Your task to perform on an android device: Check the weather Image 0: 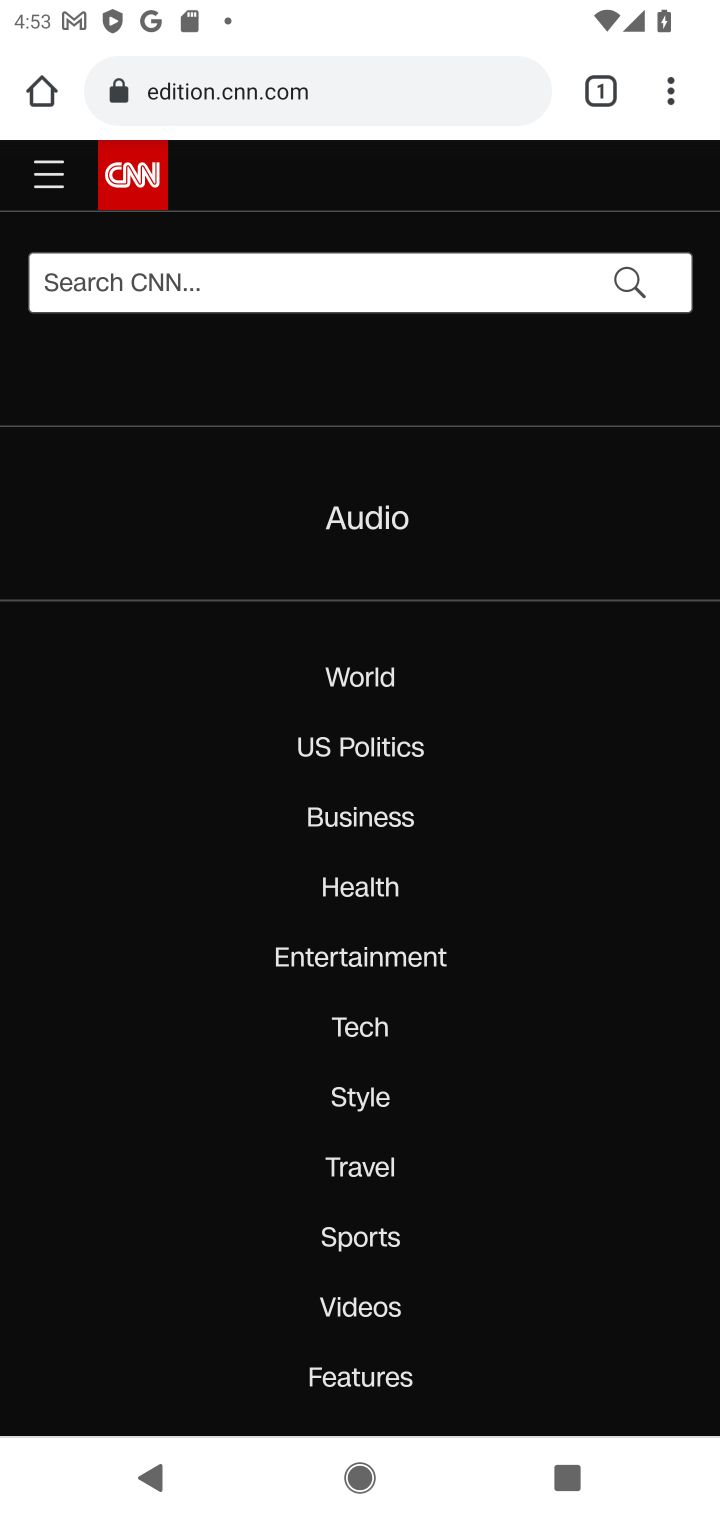
Step 0: press home button
Your task to perform on an android device: Check the weather Image 1: 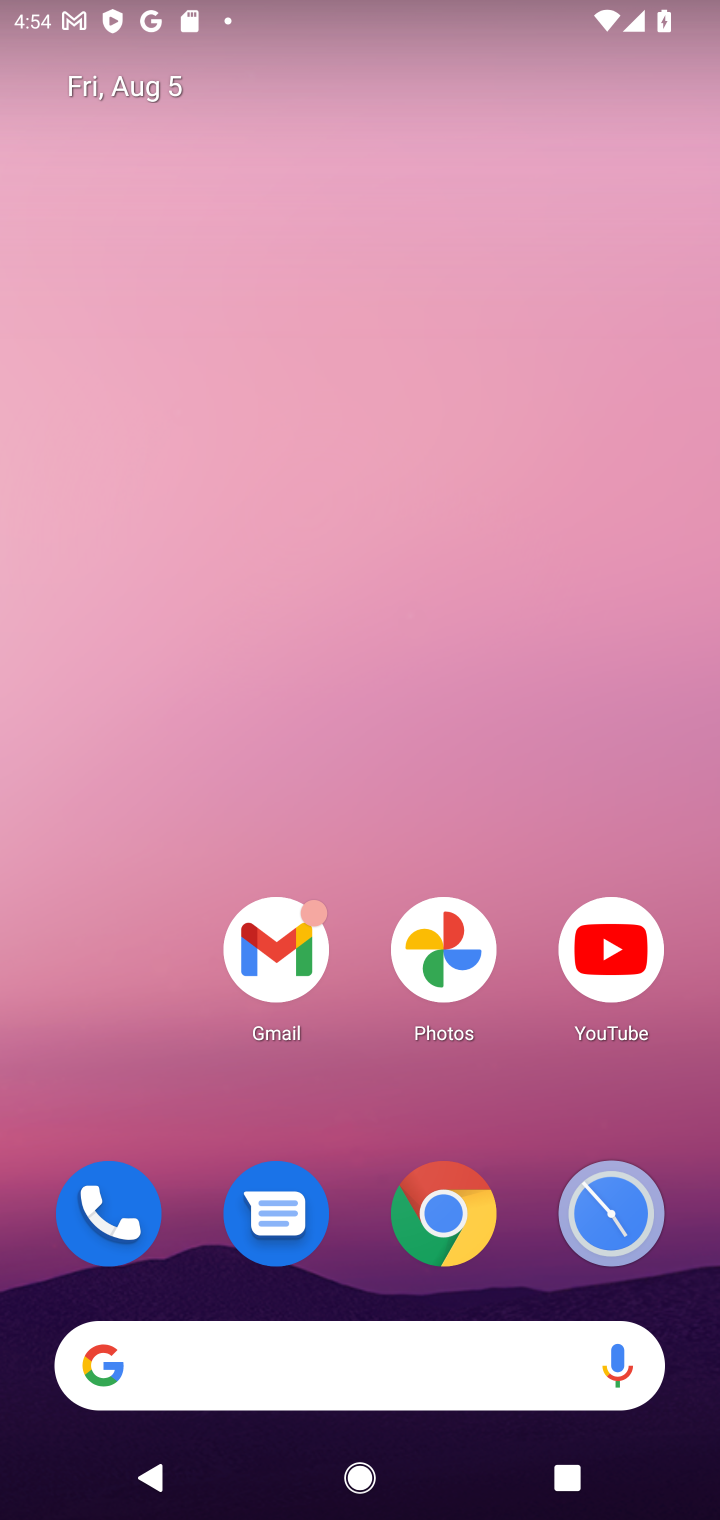
Step 1: click (458, 1352)
Your task to perform on an android device: Check the weather Image 2: 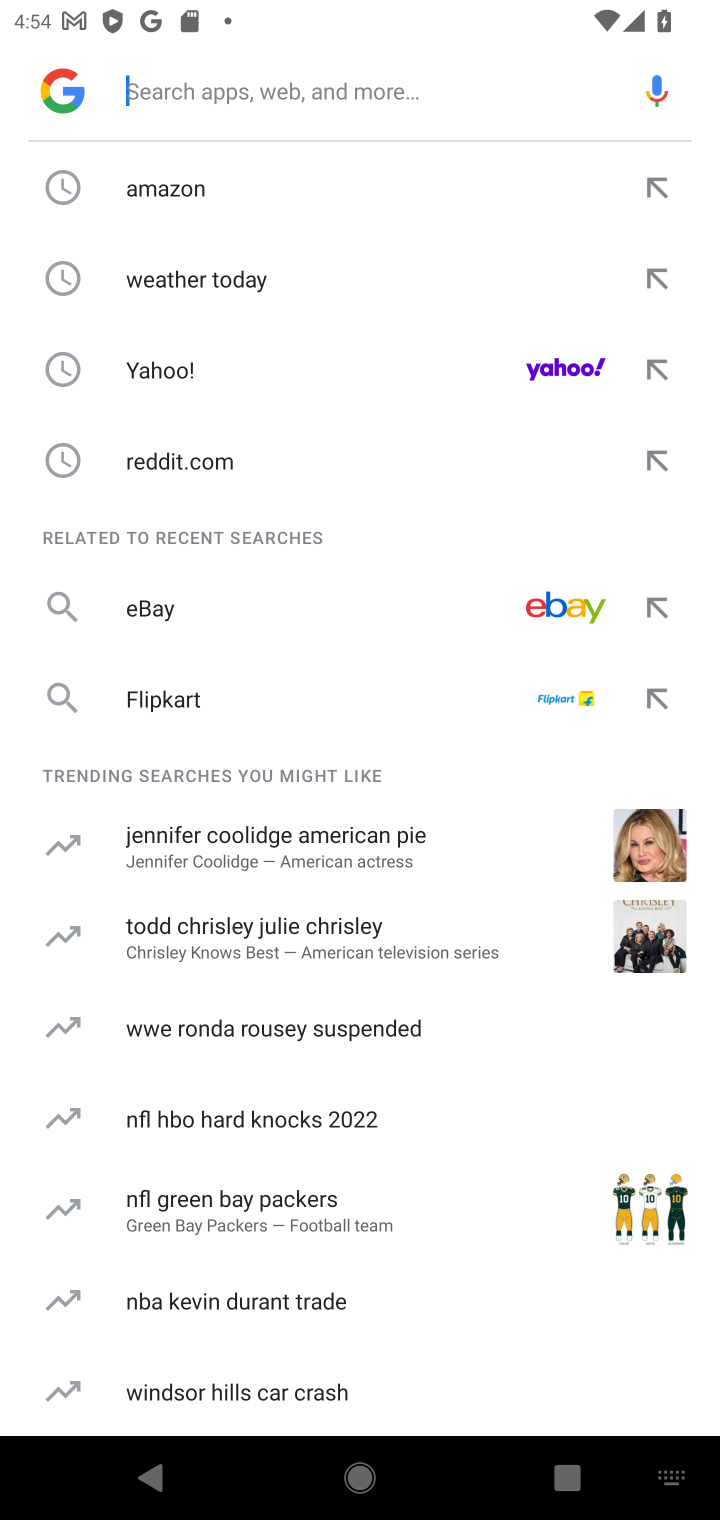
Step 2: click (415, 278)
Your task to perform on an android device: Check the weather Image 3: 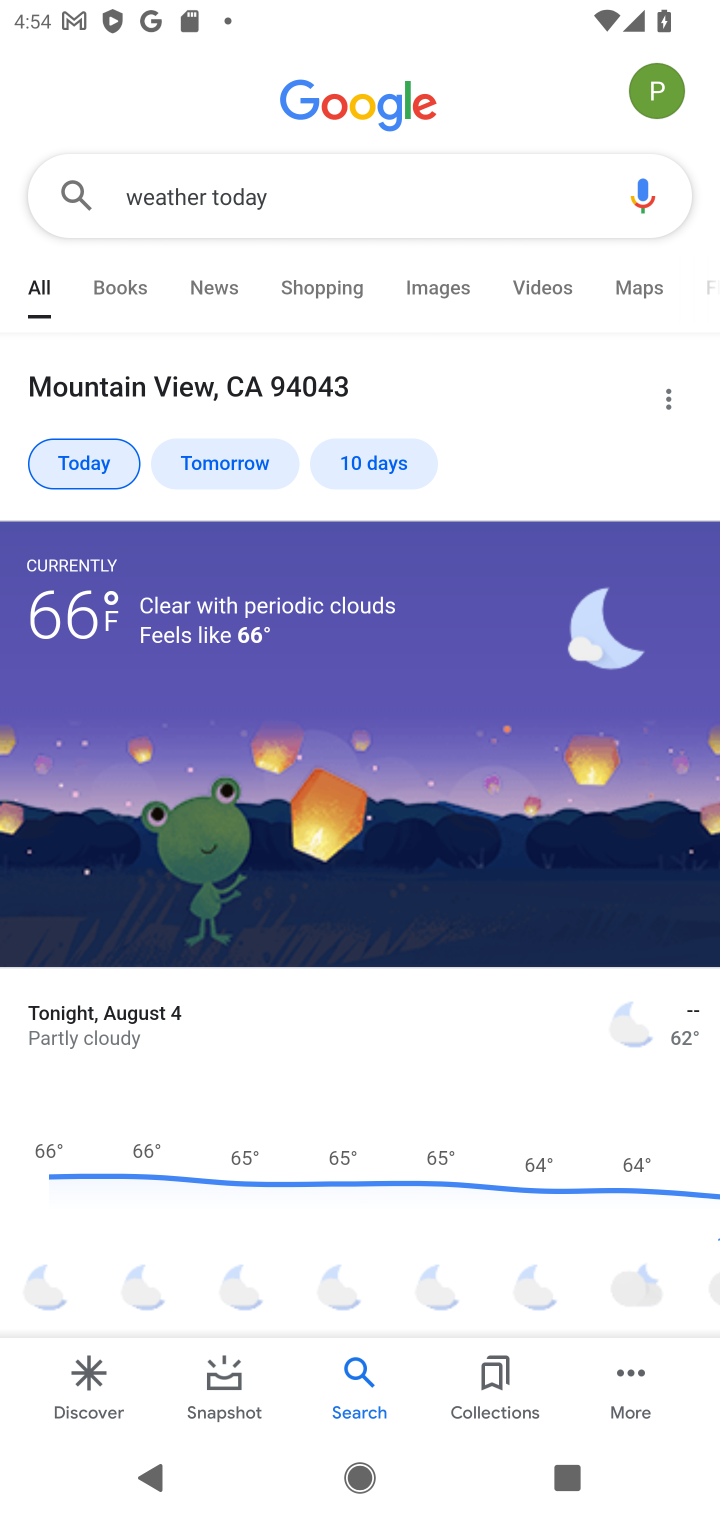
Step 3: task complete